Your task to perform on an android device: turn on the 24-hour format for clock Image 0: 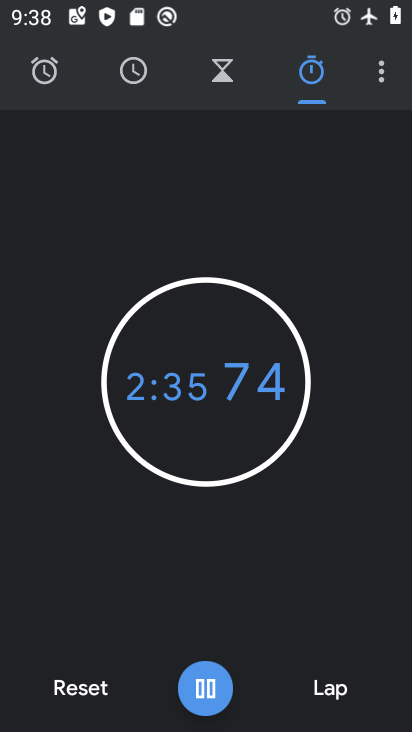
Step 0: press home button
Your task to perform on an android device: turn on the 24-hour format for clock Image 1: 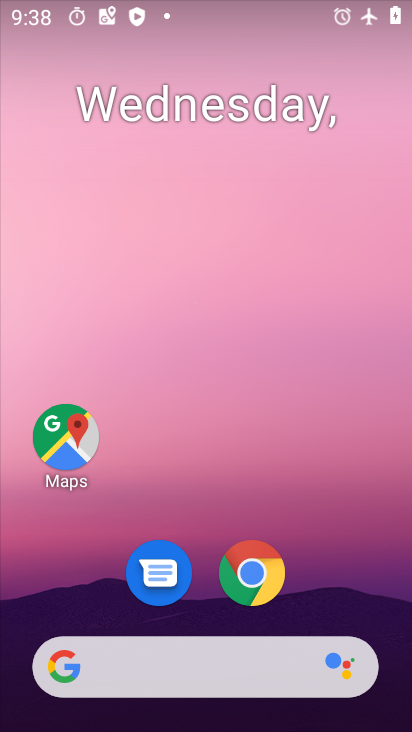
Step 1: drag from (328, 651) to (326, 71)
Your task to perform on an android device: turn on the 24-hour format for clock Image 2: 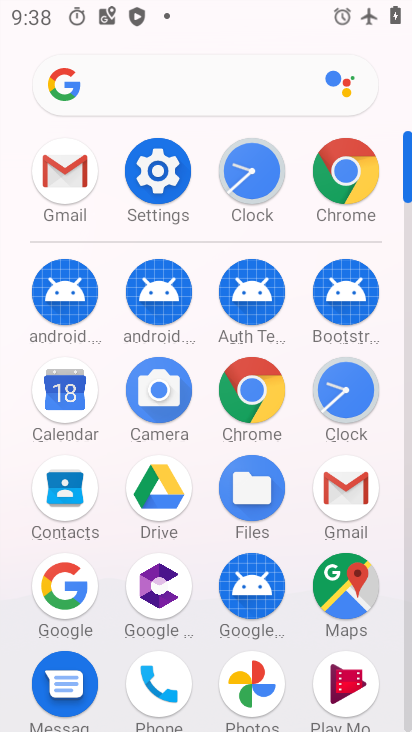
Step 2: click (250, 200)
Your task to perform on an android device: turn on the 24-hour format for clock Image 3: 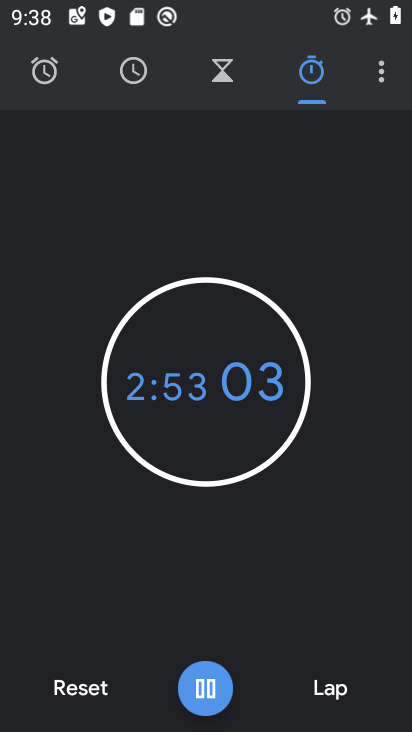
Step 3: click (391, 70)
Your task to perform on an android device: turn on the 24-hour format for clock Image 4: 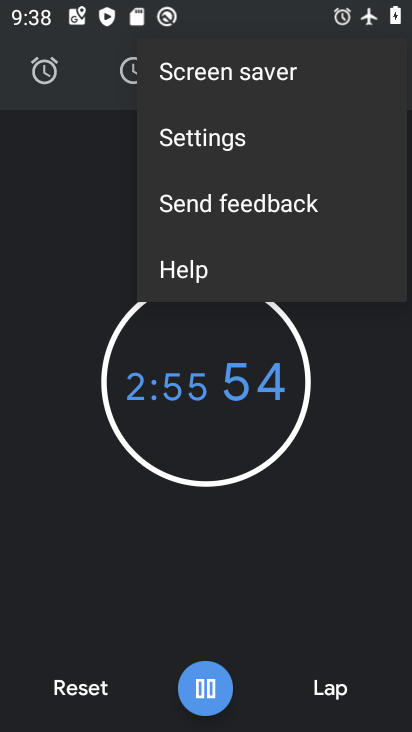
Step 4: click (208, 152)
Your task to perform on an android device: turn on the 24-hour format for clock Image 5: 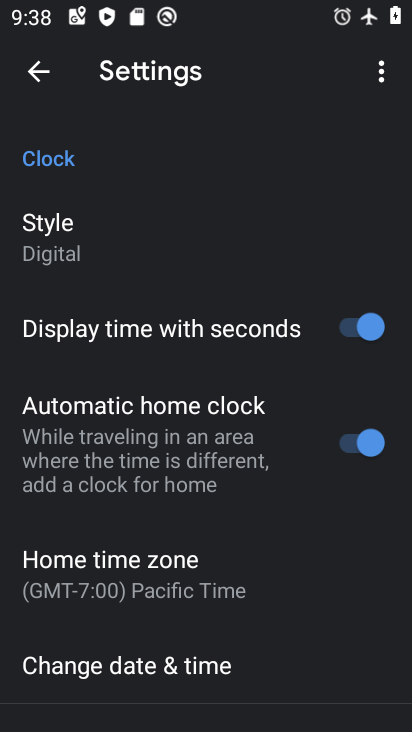
Step 5: click (177, 674)
Your task to perform on an android device: turn on the 24-hour format for clock Image 6: 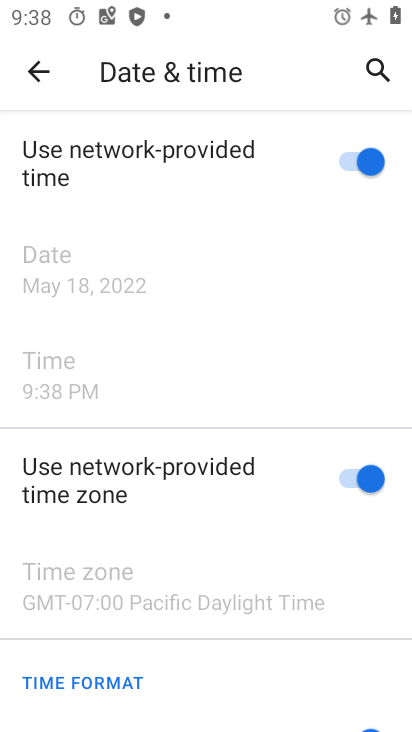
Step 6: task complete